Your task to perform on an android device: Go to Google maps Image 0: 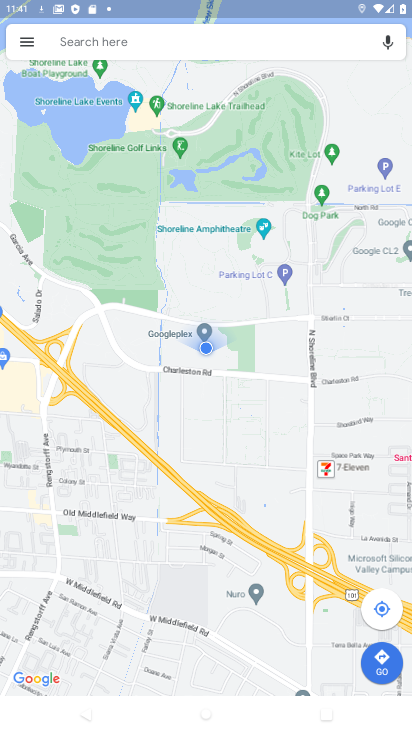
Step 0: task complete